Your task to perform on an android device: Open Google Chrome Image 0: 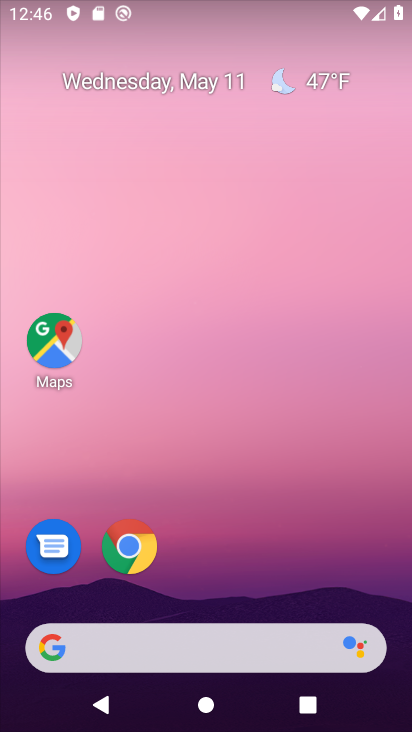
Step 0: click (131, 560)
Your task to perform on an android device: Open Google Chrome Image 1: 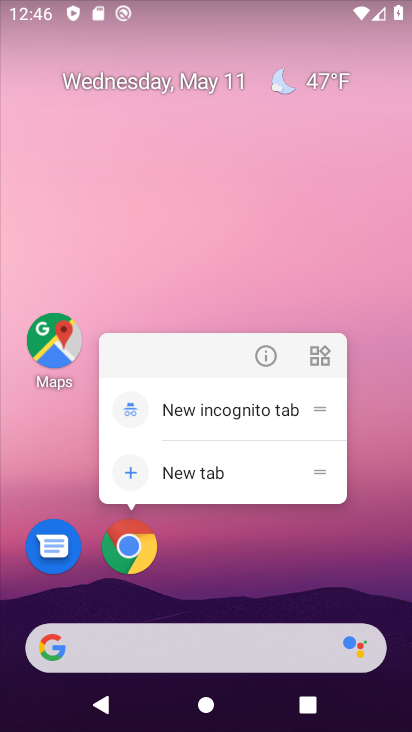
Step 1: click (133, 550)
Your task to perform on an android device: Open Google Chrome Image 2: 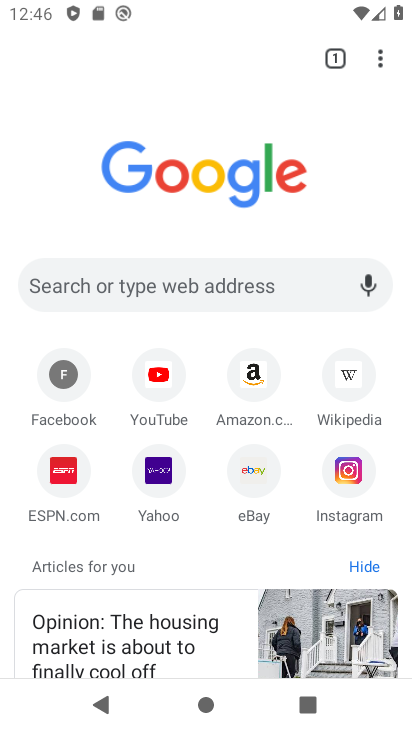
Step 2: task complete